Your task to perform on an android device: Open calendar and show me the third week of next month Image 0: 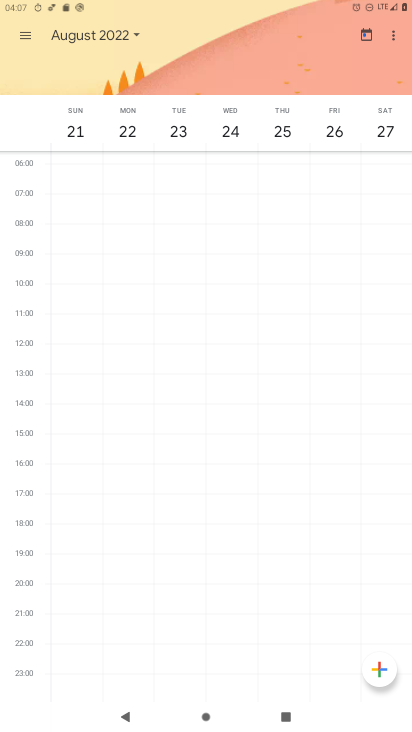
Step 0: press home button
Your task to perform on an android device: Open calendar and show me the third week of next month Image 1: 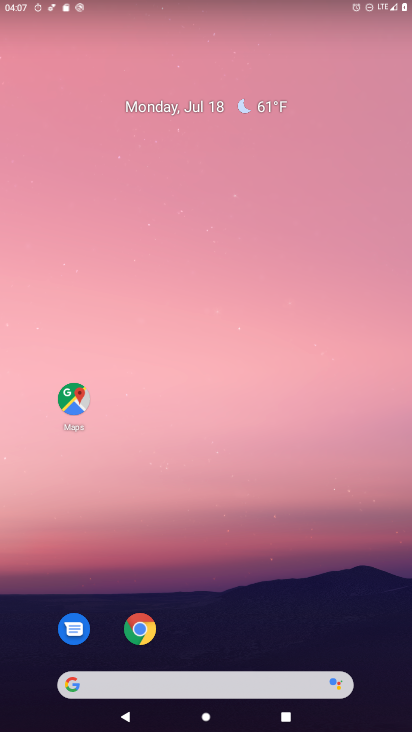
Step 1: drag from (236, 681) to (272, 183)
Your task to perform on an android device: Open calendar and show me the third week of next month Image 2: 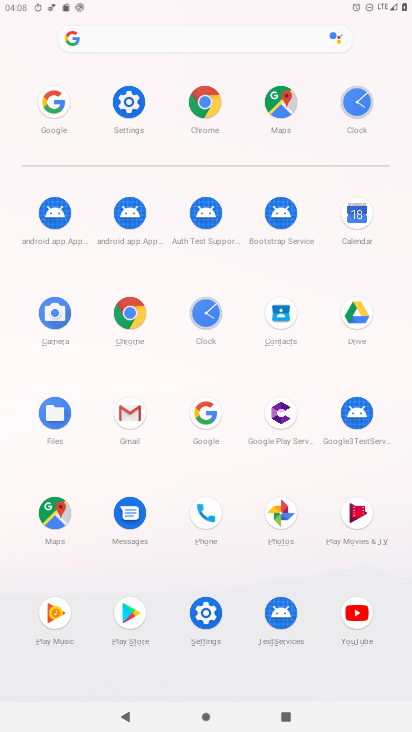
Step 2: click (355, 215)
Your task to perform on an android device: Open calendar and show me the third week of next month Image 3: 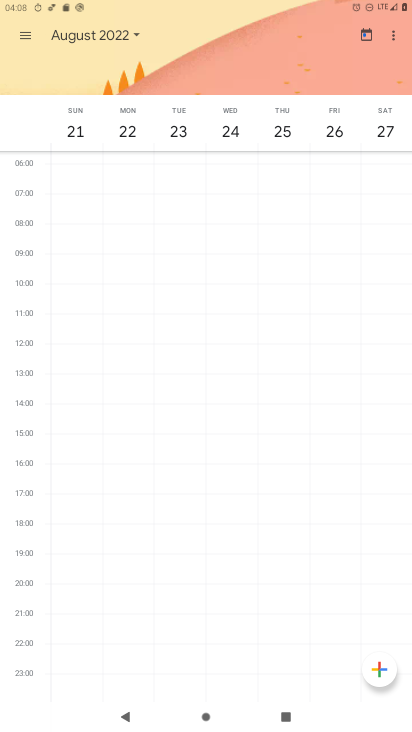
Step 3: click (368, 34)
Your task to perform on an android device: Open calendar and show me the third week of next month Image 4: 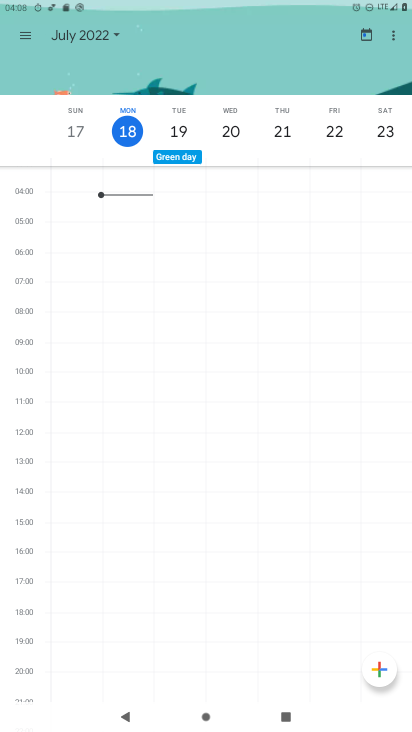
Step 4: click (118, 35)
Your task to perform on an android device: Open calendar and show me the third week of next month Image 5: 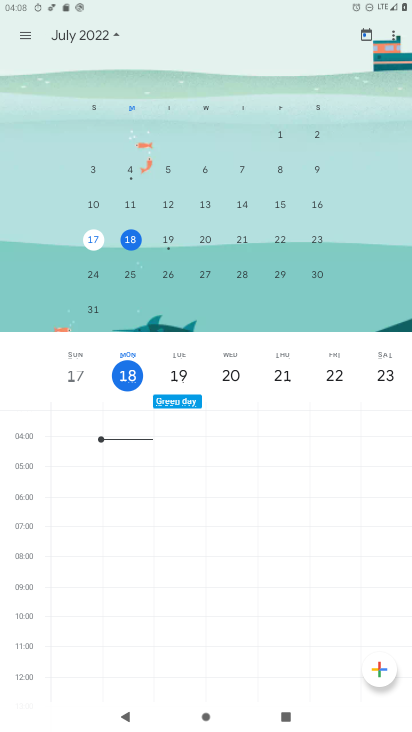
Step 5: drag from (347, 261) to (23, 285)
Your task to perform on an android device: Open calendar and show me the third week of next month Image 6: 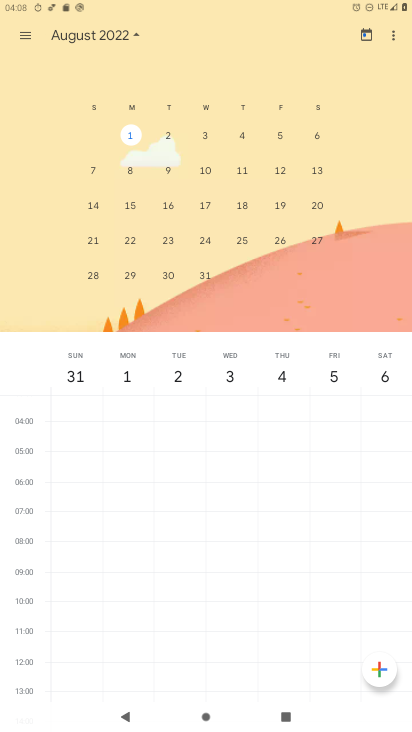
Step 6: click (132, 206)
Your task to perform on an android device: Open calendar and show me the third week of next month Image 7: 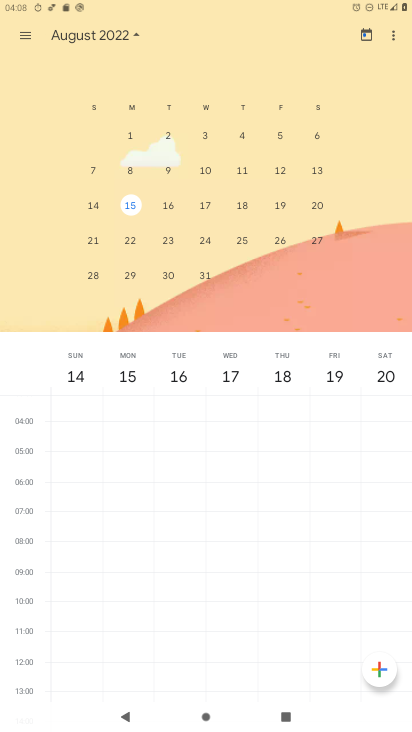
Step 7: click (27, 37)
Your task to perform on an android device: Open calendar and show me the third week of next month Image 8: 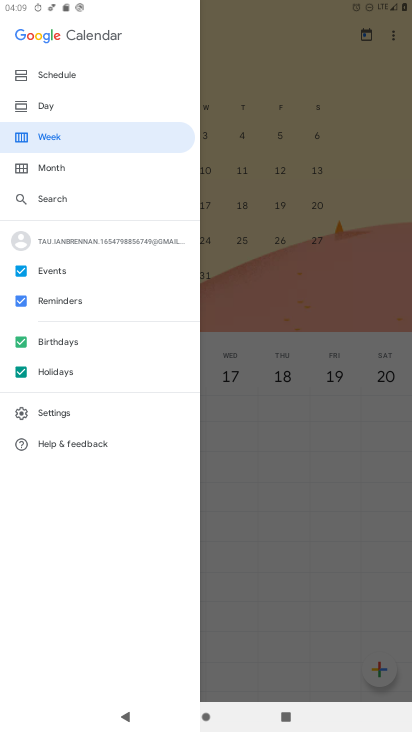
Step 8: click (83, 138)
Your task to perform on an android device: Open calendar and show me the third week of next month Image 9: 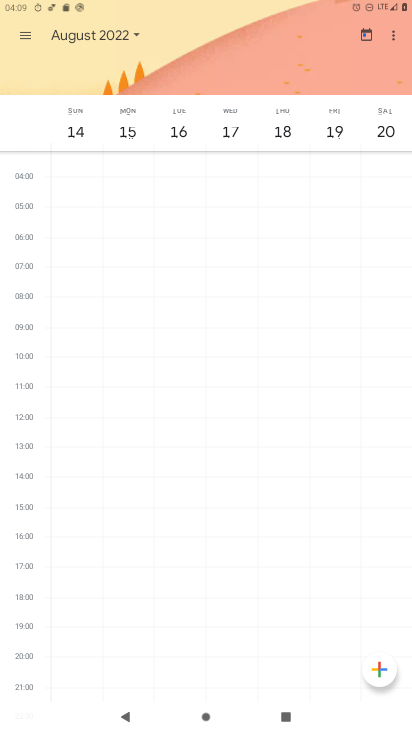
Step 9: task complete